Your task to perform on an android device: turn notification dots on Image 0: 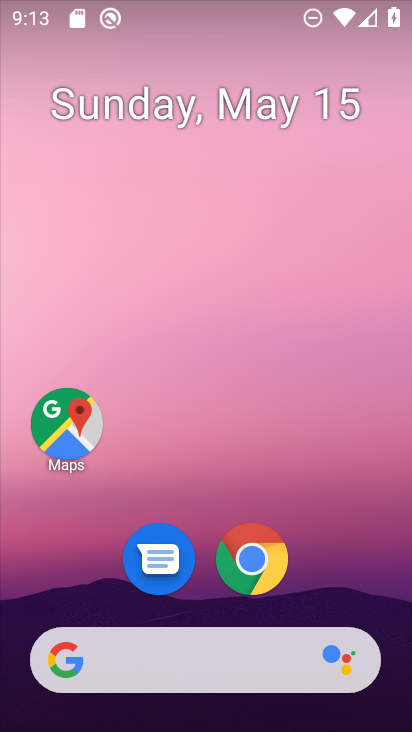
Step 0: drag from (355, 589) to (310, 124)
Your task to perform on an android device: turn notification dots on Image 1: 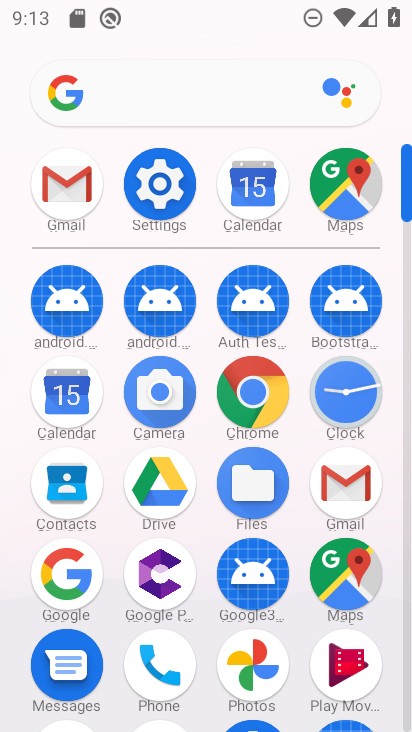
Step 1: click (178, 204)
Your task to perform on an android device: turn notification dots on Image 2: 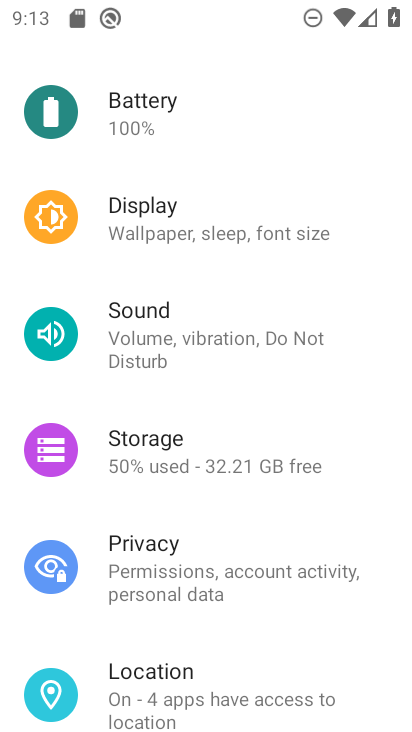
Step 2: drag from (208, 255) to (203, 546)
Your task to perform on an android device: turn notification dots on Image 3: 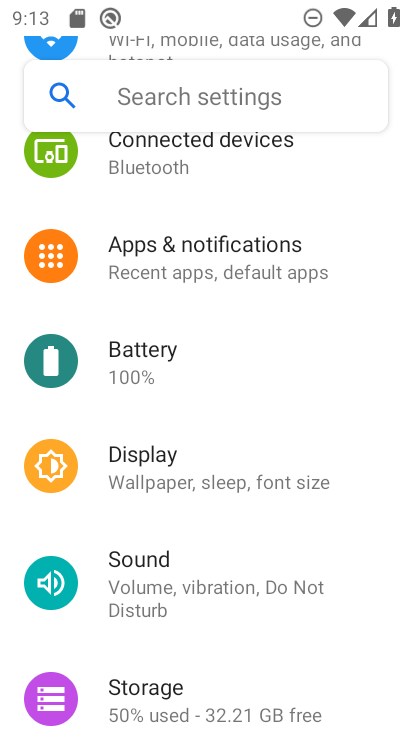
Step 3: click (213, 240)
Your task to perform on an android device: turn notification dots on Image 4: 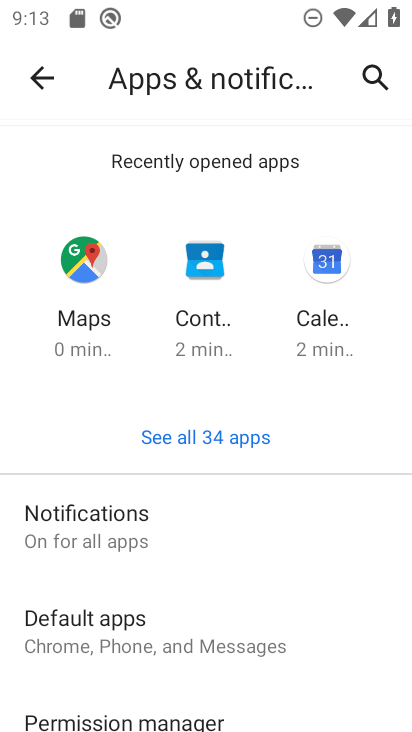
Step 4: drag from (189, 573) to (227, 324)
Your task to perform on an android device: turn notification dots on Image 5: 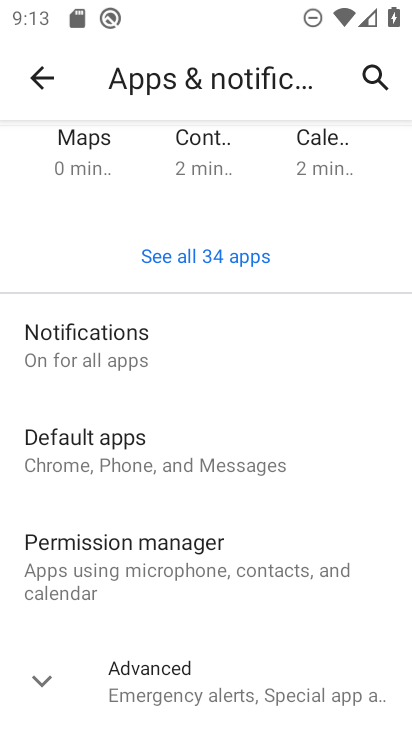
Step 5: click (184, 373)
Your task to perform on an android device: turn notification dots on Image 6: 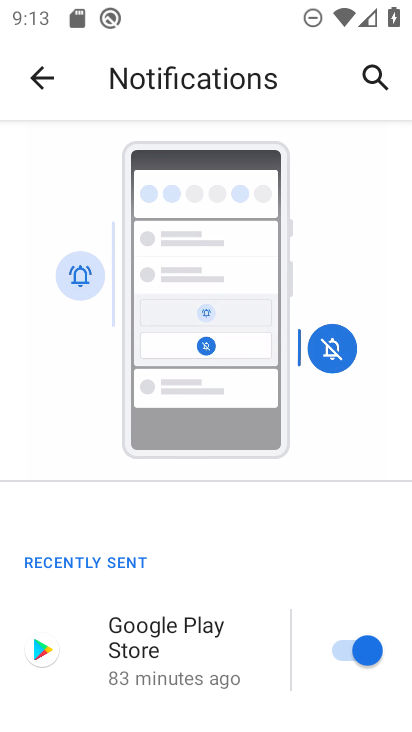
Step 6: drag from (156, 617) to (212, 249)
Your task to perform on an android device: turn notification dots on Image 7: 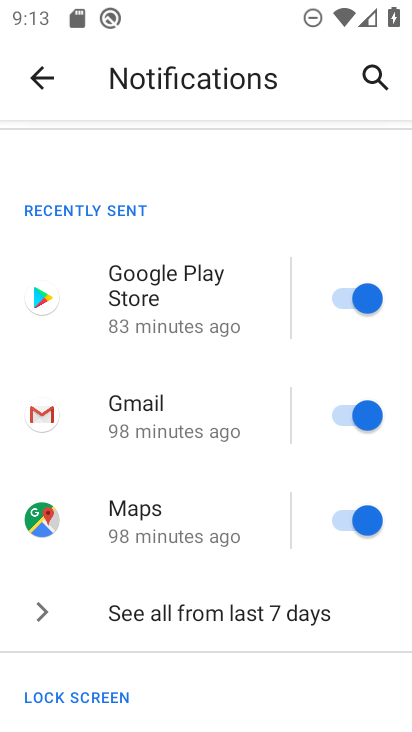
Step 7: drag from (169, 483) to (211, 315)
Your task to perform on an android device: turn notification dots on Image 8: 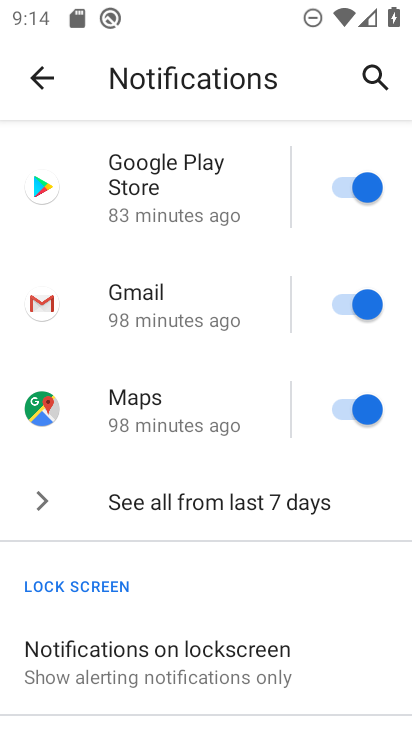
Step 8: click (176, 661)
Your task to perform on an android device: turn notification dots on Image 9: 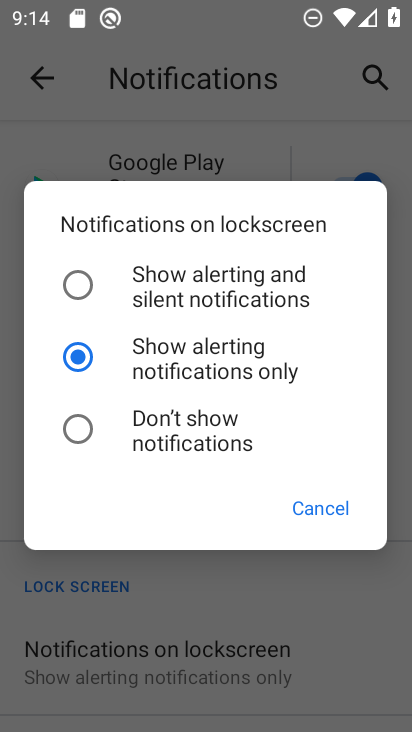
Step 9: click (333, 518)
Your task to perform on an android device: turn notification dots on Image 10: 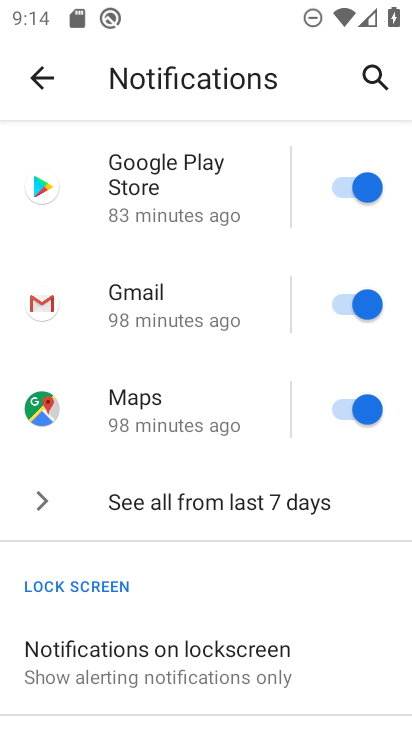
Step 10: drag from (337, 614) to (336, 171)
Your task to perform on an android device: turn notification dots on Image 11: 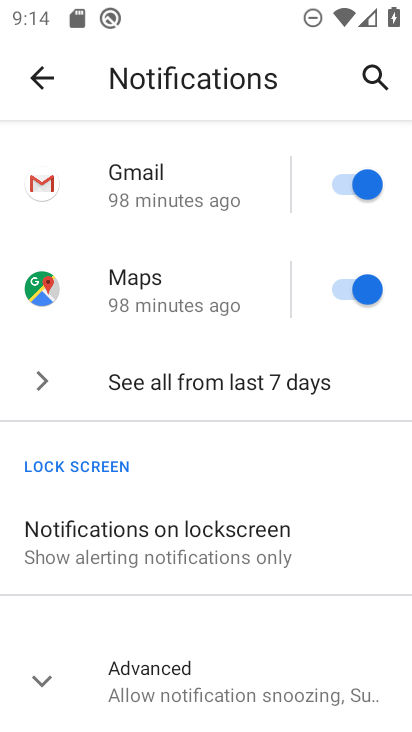
Step 11: click (269, 653)
Your task to perform on an android device: turn notification dots on Image 12: 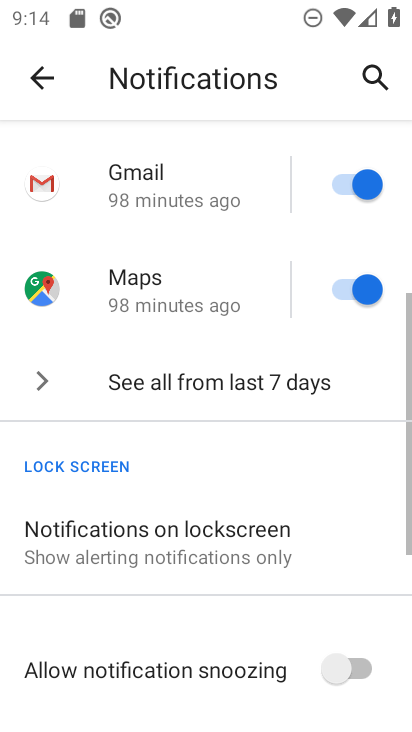
Step 12: task complete